Your task to perform on an android device: show emergency info Image 0: 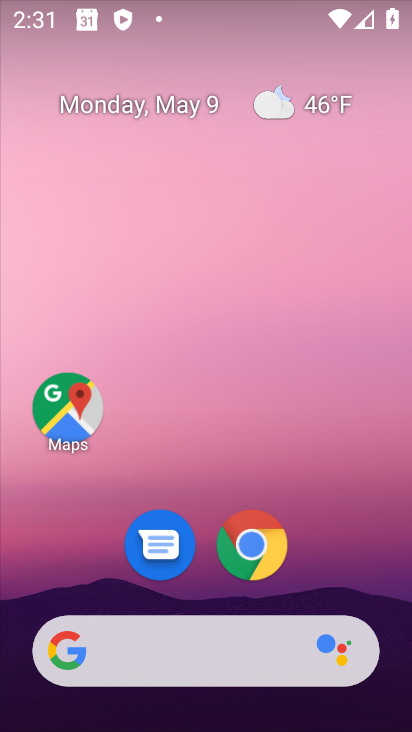
Step 0: drag from (189, 482) to (224, 245)
Your task to perform on an android device: show emergency info Image 1: 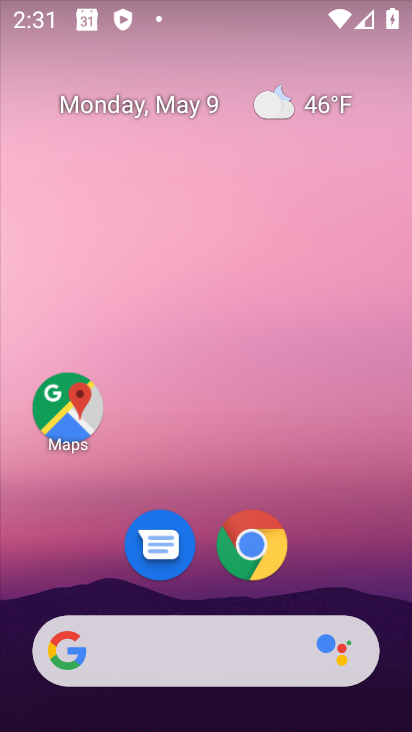
Step 1: drag from (211, 592) to (226, 240)
Your task to perform on an android device: show emergency info Image 2: 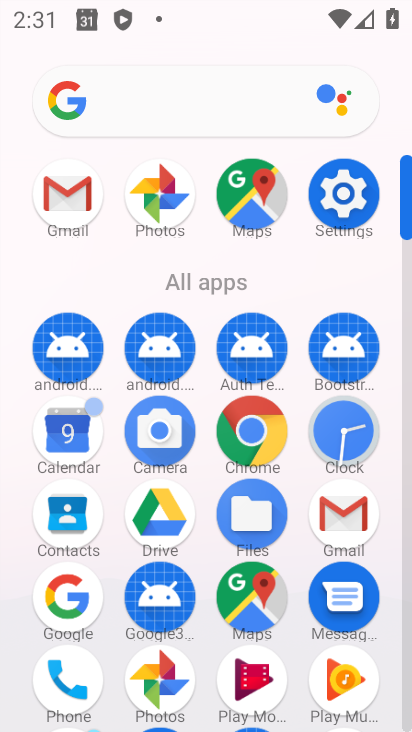
Step 2: click (357, 201)
Your task to perform on an android device: show emergency info Image 3: 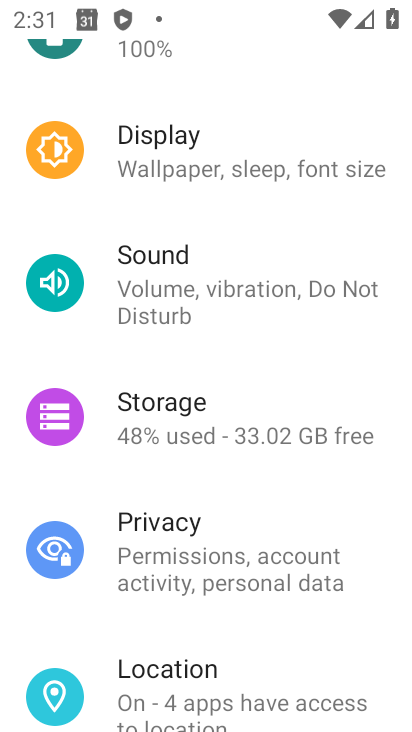
Step 3: drag from (260, 650) to (309, 218)
Your task to perform on an android device: show emergency info Image 4: 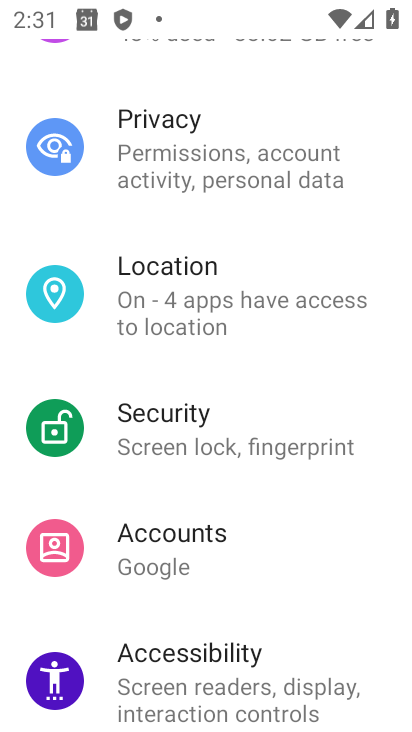
Step 4: drag from (254, 571) to (299, 316)
Your task to perform on an android device: show emergency info Image 5: 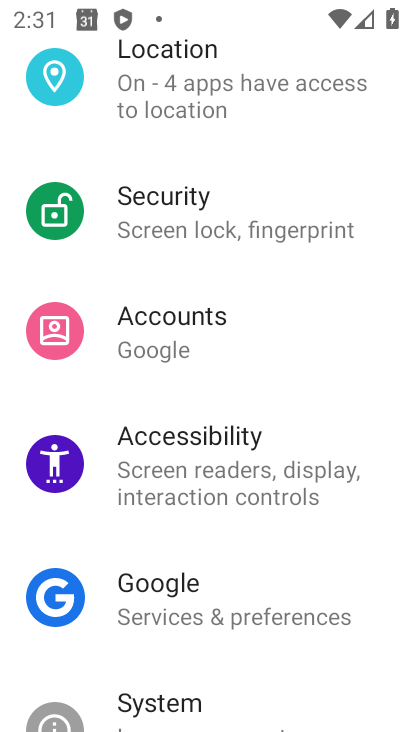
Step 5: drag from (246, 563) to (255, 264)
Your task to perform on an android device: show emergency info Image 6: 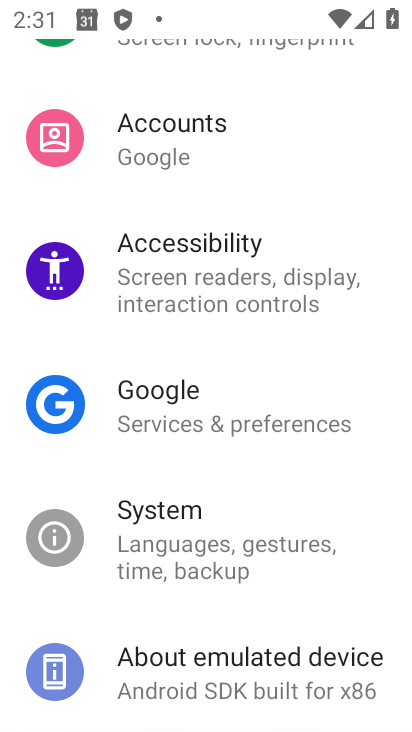
Step 6: drag from (216, 568) to (248, 374)
Your task to perform on an android device: show emergency info Image 7: 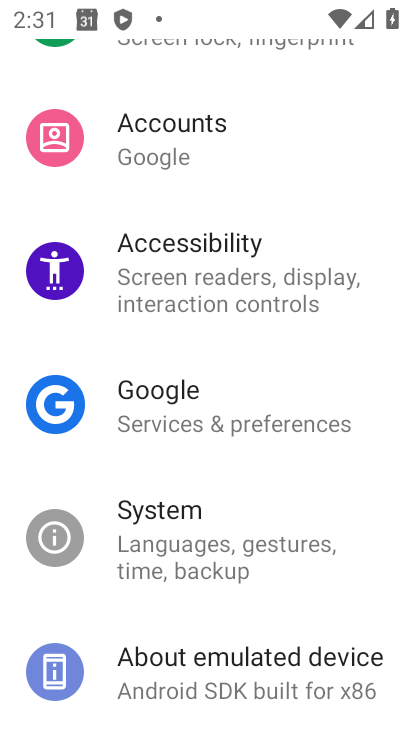
Step 7: click (183, 648)
Your task to perform on an android device: show emergency info Image 8: 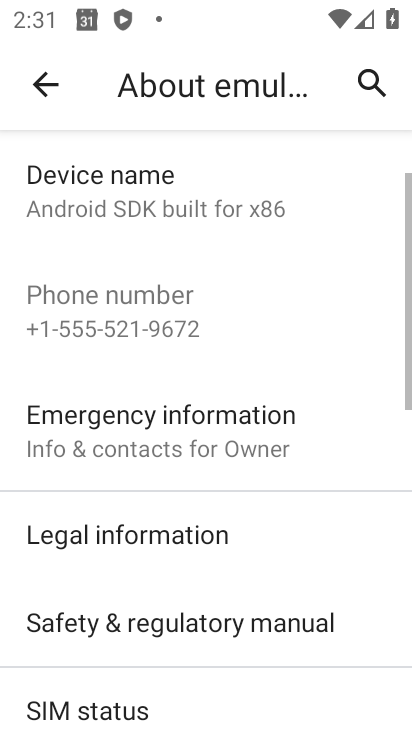
Step 8: click (166, 419)
Your task to perform on an android device: show emergency info Image 9: 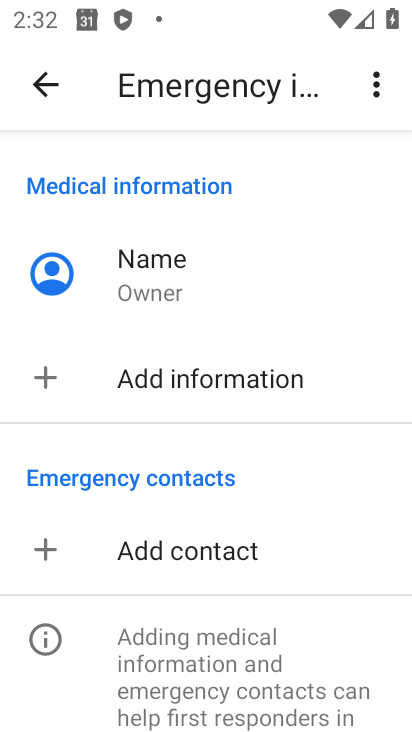
Step 9: task complete